Your task to perform on an android device: change the clock style Image 0: 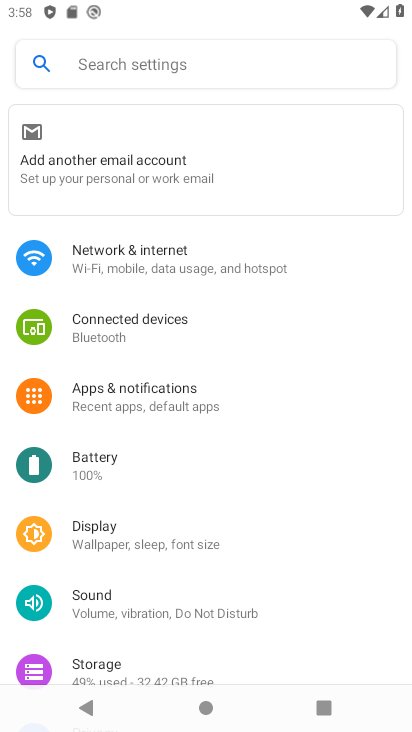
Step 0: press home button
Your task to perform on an android device: change the clock style Image 1: 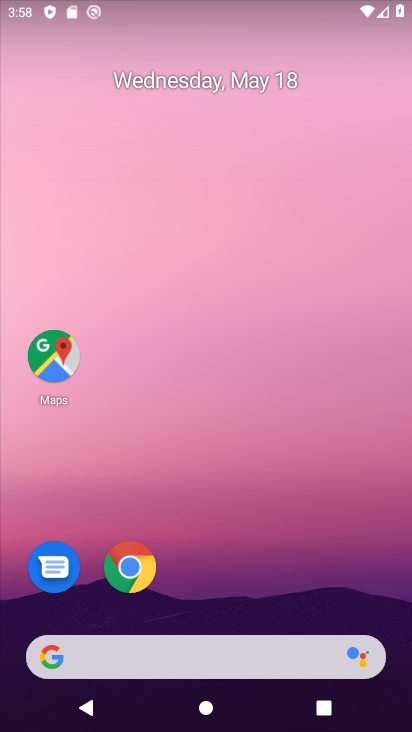
Step 1: drag from (239, 551) to (340, 77)
Your task to perform on an android device: change the clock style Image 2: 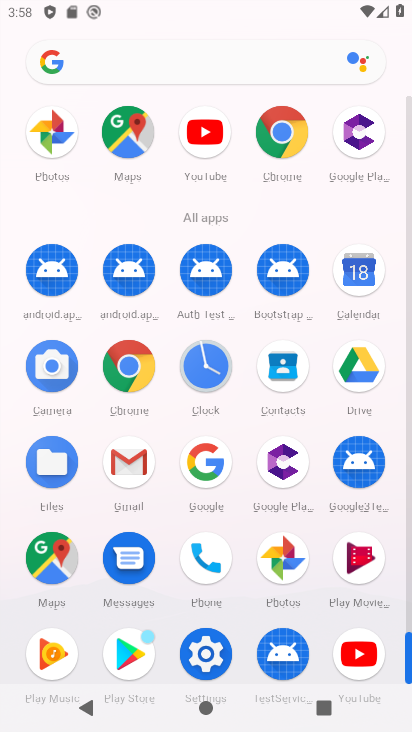
Step 2: click (195, 361)
Your task to perform on an android device: change the clock style Image 3: 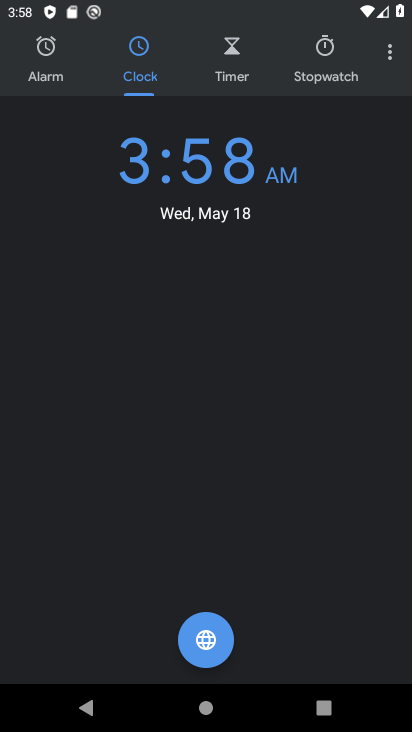
Step 3: click (391, 47)
Your task to perform on an android device: change the clock style Image 4: 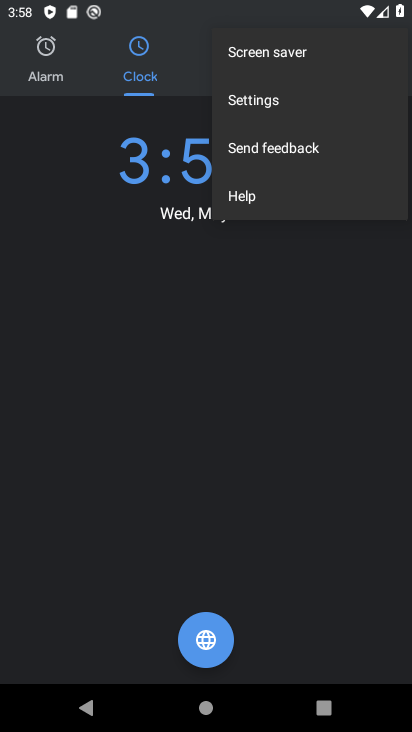
Step 4: click (268, 106)
Your task to perform on an android device: change the clock style Image 5: 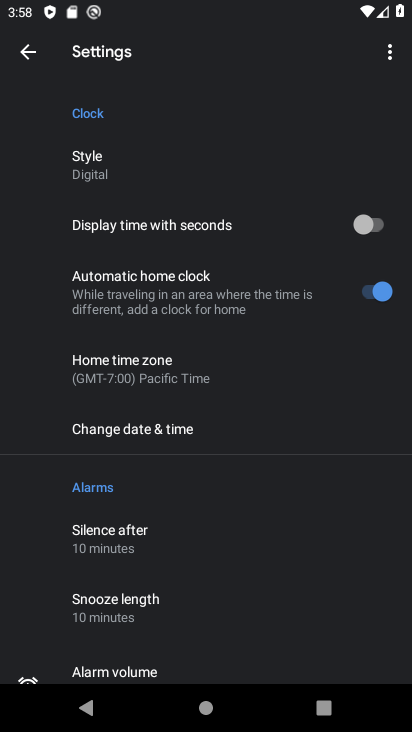
Step 5: click (113, 169)
Your task to perform on an android device: change the clock style Image 6: 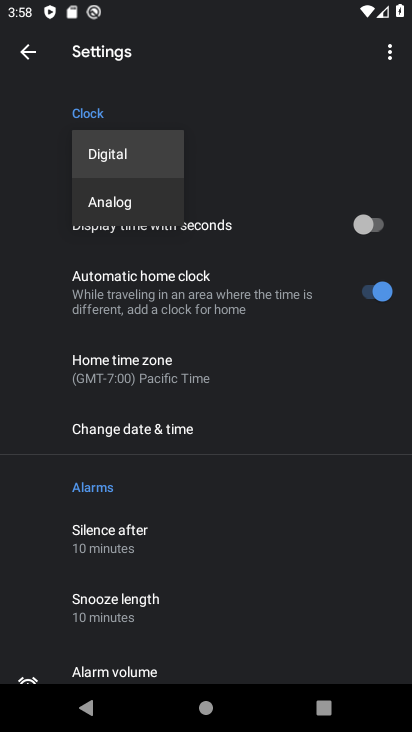
Step 6: click (122, 199)
Your task to perform on an android device: change the clock style Image 7: 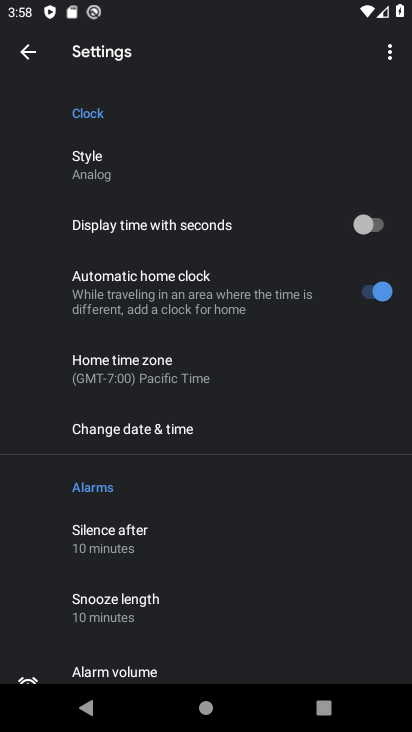
Step 7: task complete